Your task to perform on an android device: empty trash in google photos Image 0: 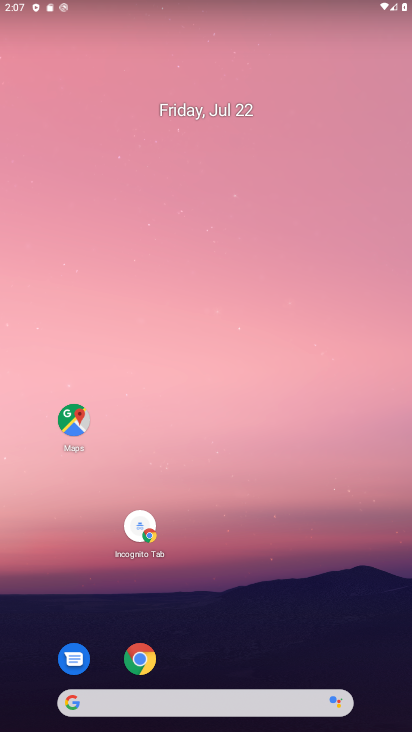
Step 0: drag from (330, 617) to (277, 3)
Your task to perform on an android device: empty trash in google photos Image 1: 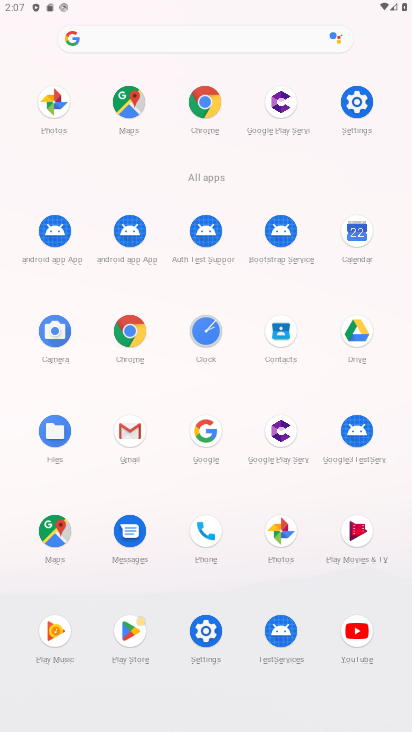
Step 1: click (267, 532)
Your task to perform on an android device: empty trash in google photos Image 2: 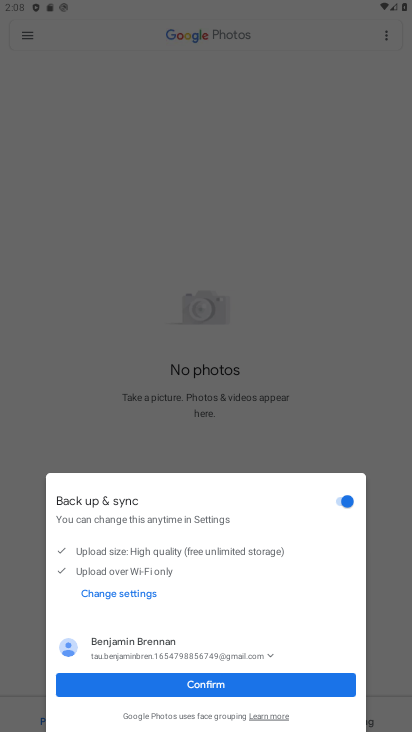
Step 2: click (294, 689)
Your task to perform on an android device: empty trash in google photos Image 3: 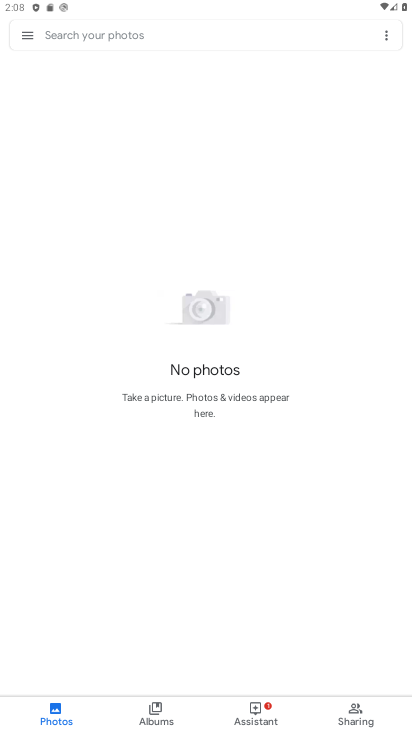
Step 3: click (25, 42)
Your task to perform on an android device: empty trash in google photos Image 4: 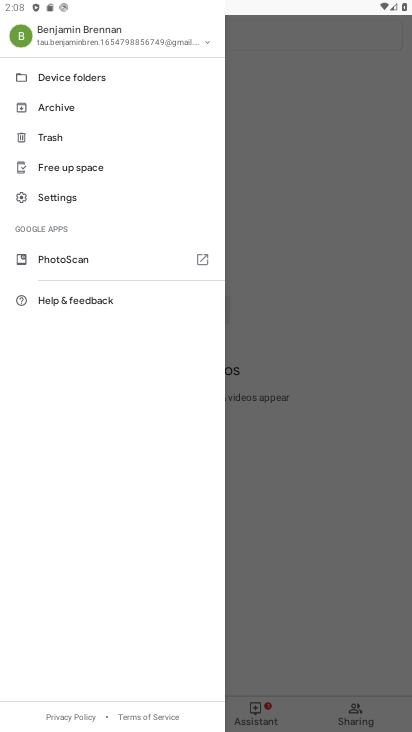
Step 4: click (53, 129)
Your task to perform on an android device: empty trash in google photos Image 5: 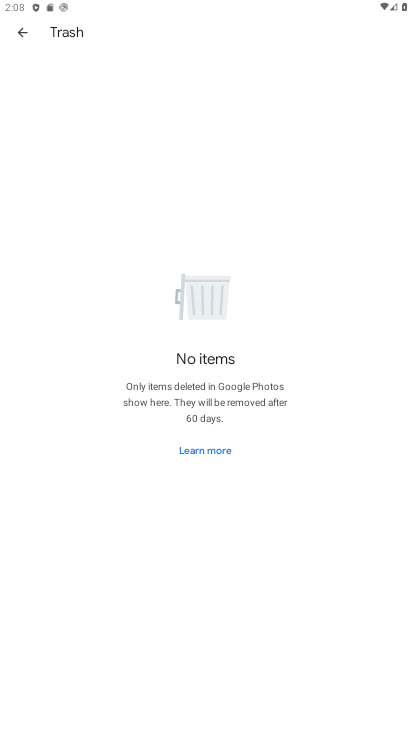
Step 5: task complete